Your task to perform on an android device: empty trash in google photos Image 0: 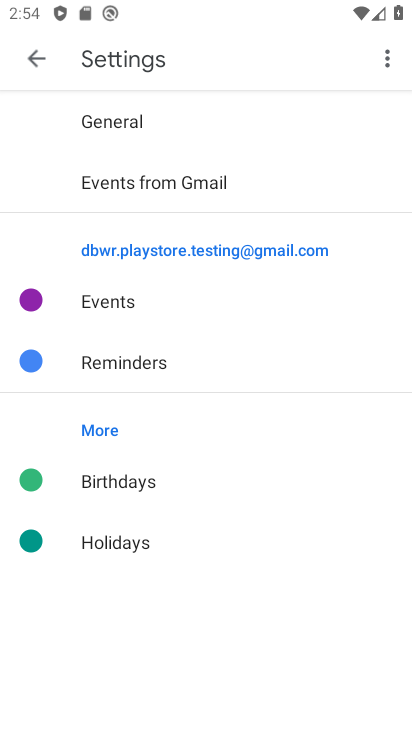
Step 0: press home button
Your task to perform on an android device: empty trash in google photos Image 1: 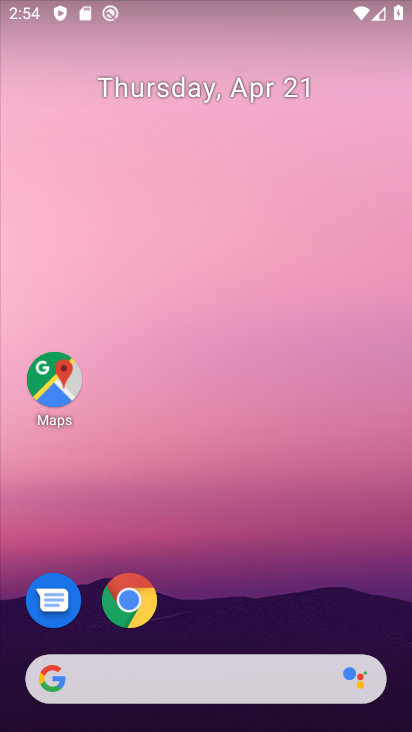
Step 1: drag from (186, 666) to (329, 108)
Your task to perform on an android device: empty trash in google photos Image 2: 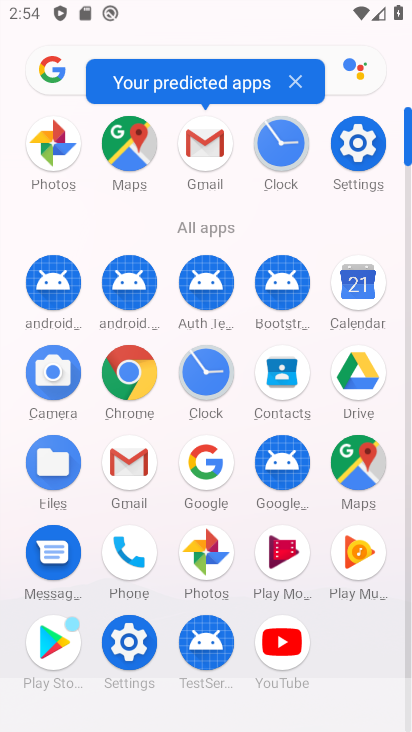
Step 2: click (211, 561)
Your task to perform on an android device: empty trash in google photos Image 3: 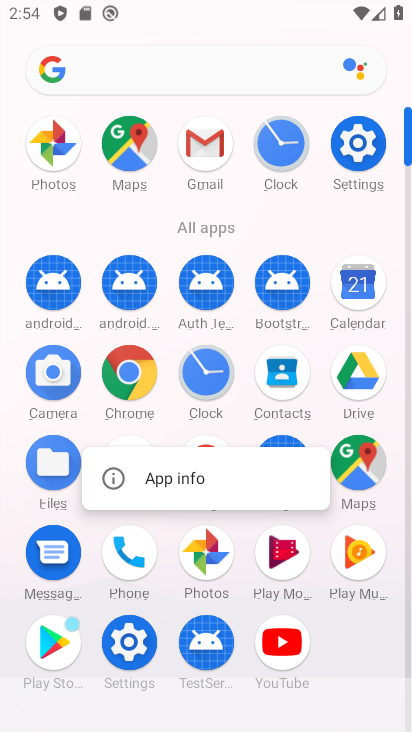
Step 3: click (207, 552)
Your task to perform on an android device: empty trash in google photos Image 4: 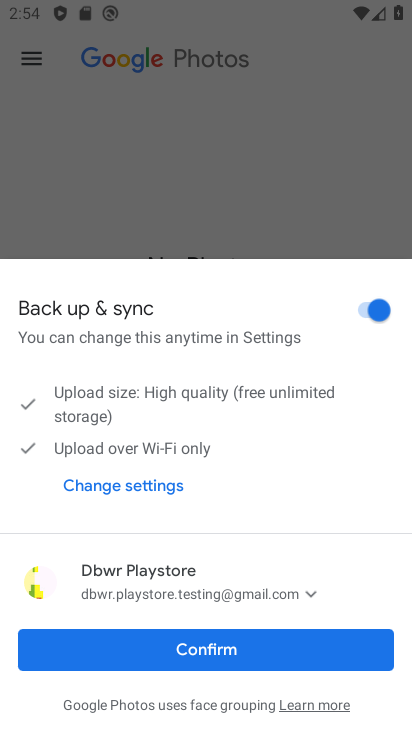
Step 4: click (193, 645)
Your task to perform on an android device: empty trash in google photos Image 5: 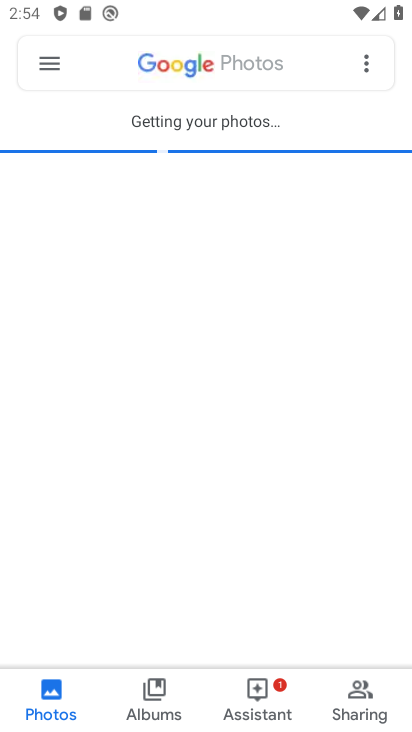
Step 5: click (53, 66)
Your task to perform on an android device: empty trash in google photos Image 6: 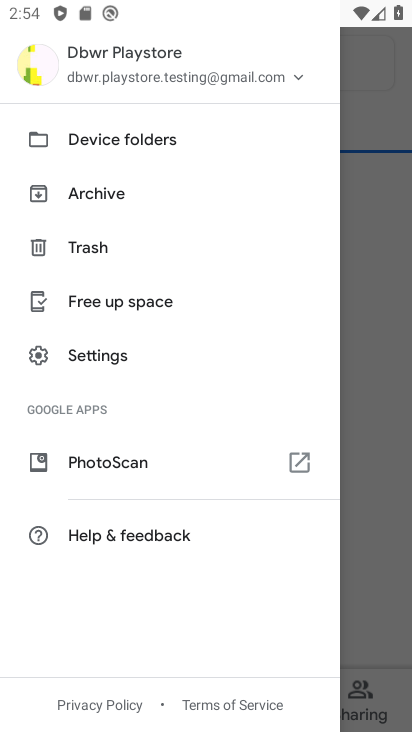
Step 6: click (82, 247)
Your task to perform on an android device: empty trash in google photos Image 7: 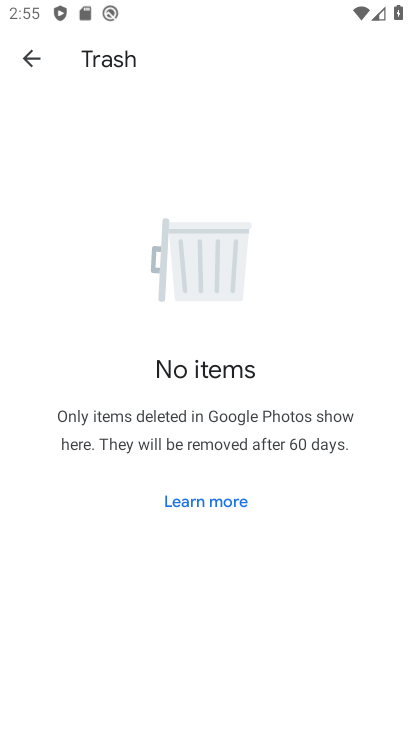
Step 7: task complete